Your task to perform on an android device: check google app version Image 0: 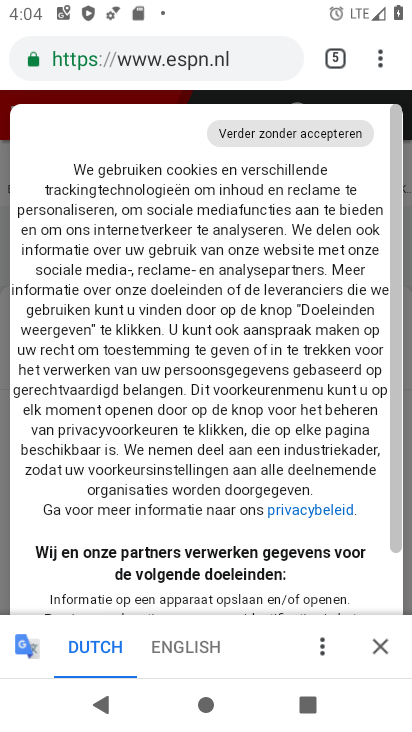
Step 0: press back button
Your task to perform on an android device: check google app version Image 1: 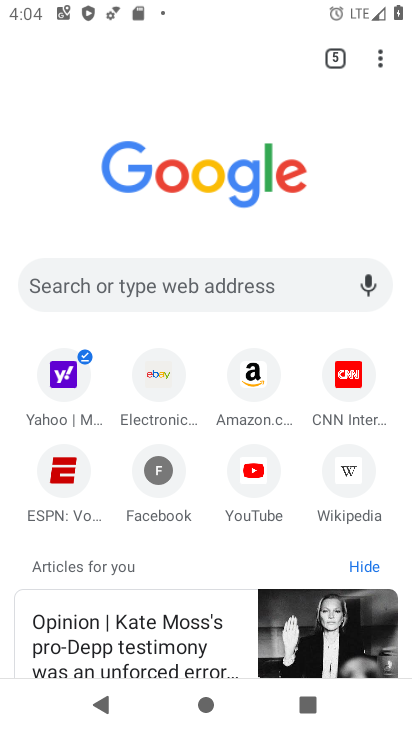
Step 1: press back button
Your task to perform on an android device: check google app version Image 2: 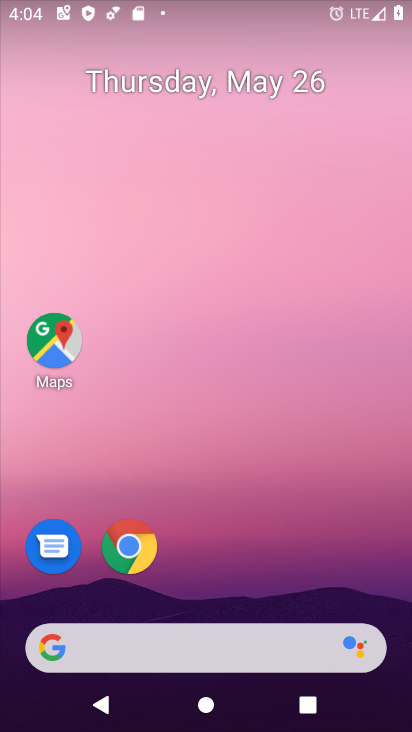
Step 2: drag from (203, 599) to (309, 12)
Your task to perform on an android device: check google app version Image 3: 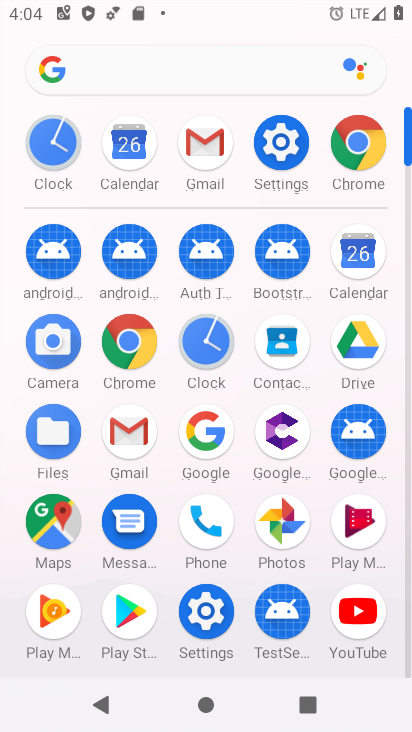
Step 3: click (206, 436)
Your task to perform on an android device: check google app version Image 4: 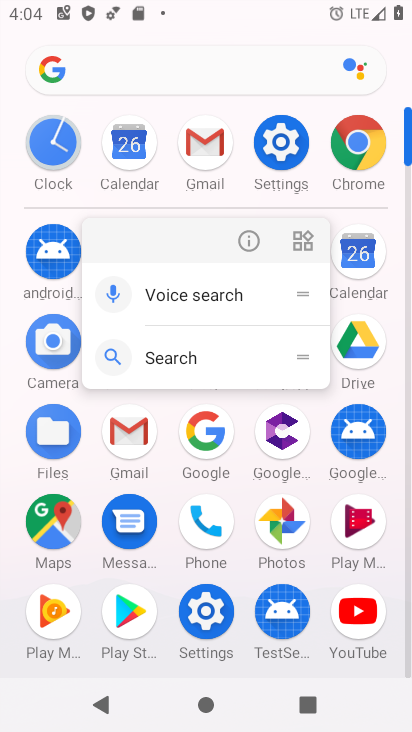
Step 4: click (249, 237)
Your task to perform on an android device: check google app version Image 5: 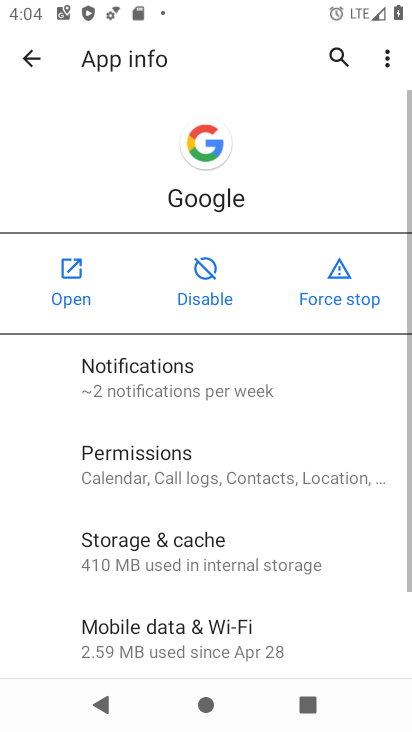
Step 5: drag from (178, 605) to (275, 49)
Your task to perform on an android device: check google app version Image 6: 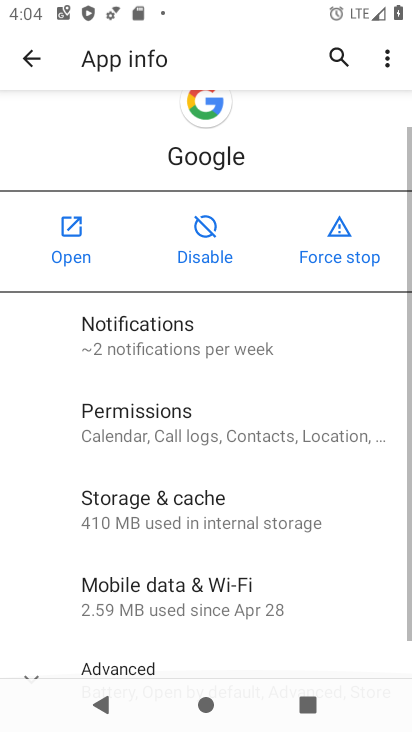
Step 6: drag from (203, 602) to (261, 173)
Your task to perform on an android device: check google app version Image 7: 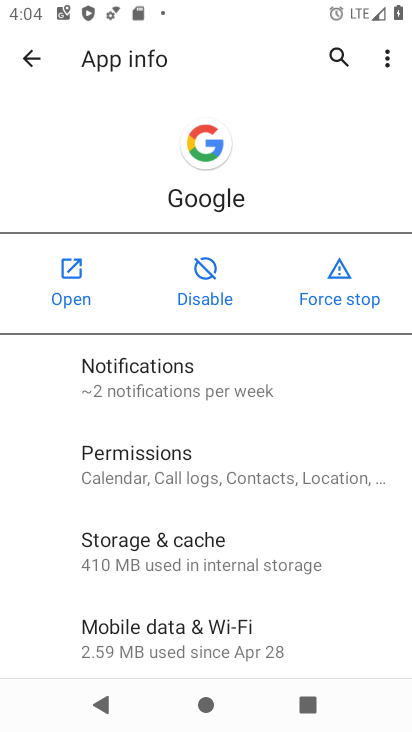
Step 7: drag from (196, 611) to (316, 145)
Your task to perform on an android device: check google app version Image 8: 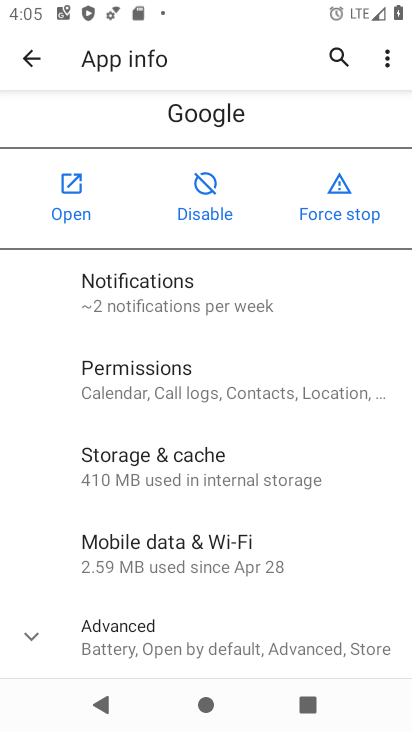
Step 8: drag from (197, 581) to (291, 20)
Your task to perform on an android device: check google app version Image 9: 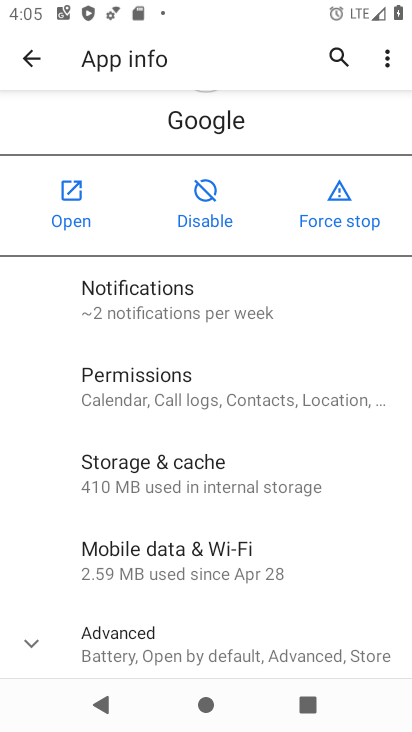
Step 9: click (155, 636)
Your task to perform on an android device: check google app version Image 10: 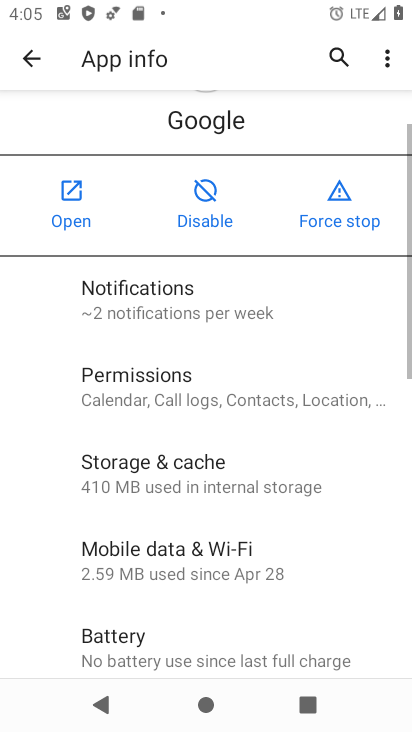
Step 10: task complete